Your task to perform on an android device: Open battery settings Image 0: 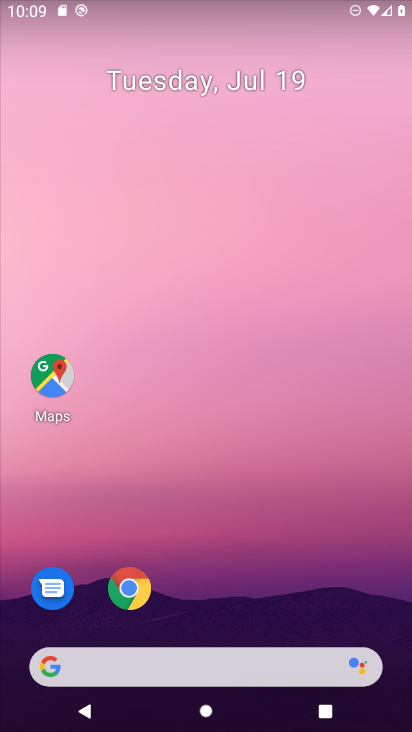
Step 0: click (269, 105)
Your task to perform on an android device: Open battery settings Image 1: 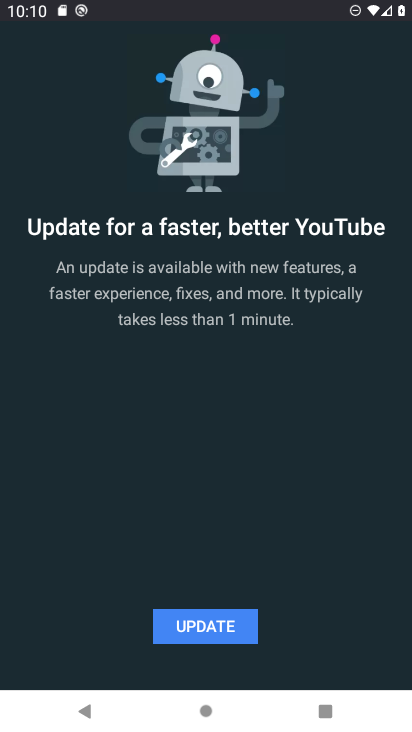
Step 1: press home button
Your task to perform on an android device: Open battery settings Image 2: 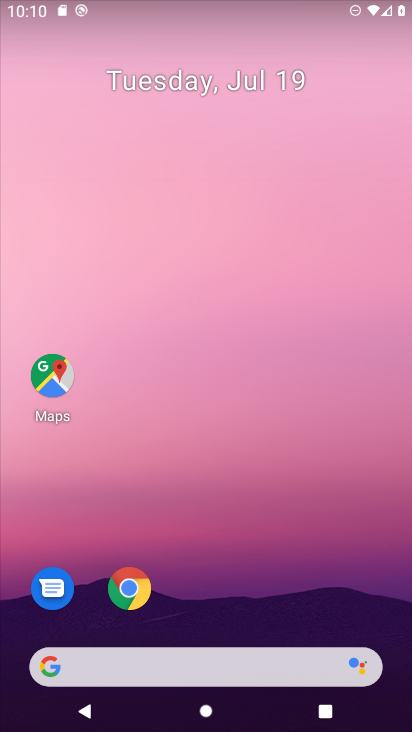
Step 2: drag from (302, 624) to (187, 6)
Your task to perform on an android device: Open battery settings Image 3: 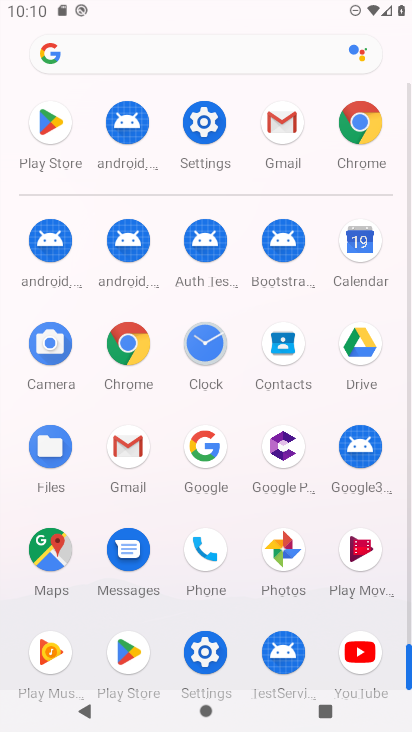
Step 3: click (207, 145)
Your task to perform on an android device: Open battery settings Image 4: 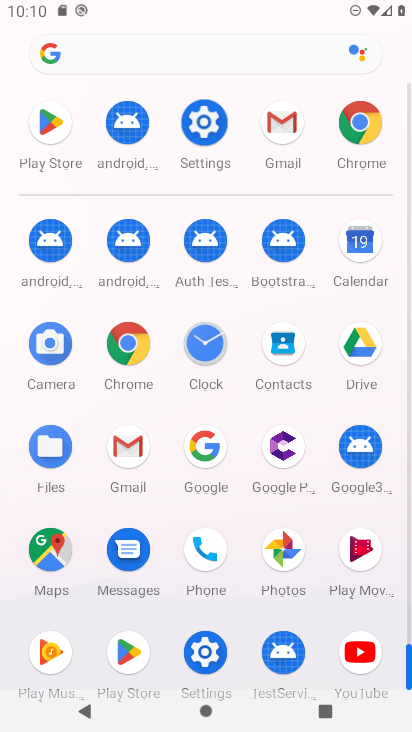
Step 4: click (207, 138)
Your task to perform on an android device: Open battery settings Image 5: 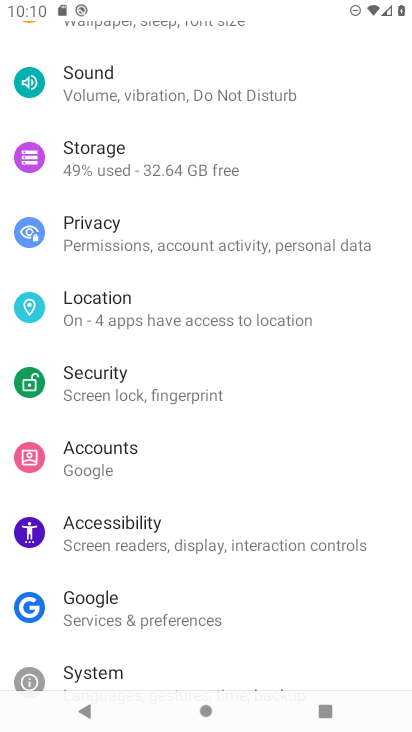
Step 5: click (138, 159)
Your task to perform on an android device: Open battery settings Image 6: 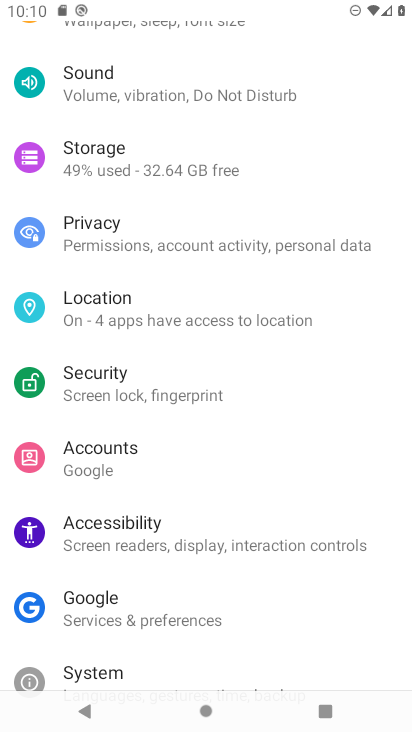
Step 6: drag from (155, 439) to (145, 124)
Your task to perform on an android device: Open battery settings Image 7: 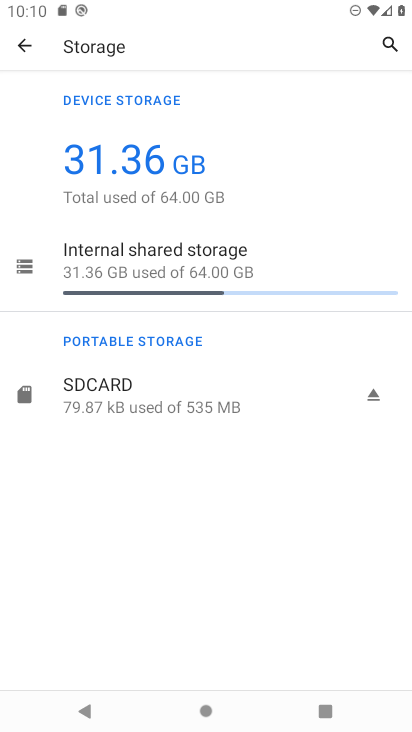
Step 7: click (24, 35)
Your task to perform on an android device: Open battery settings Image 8: 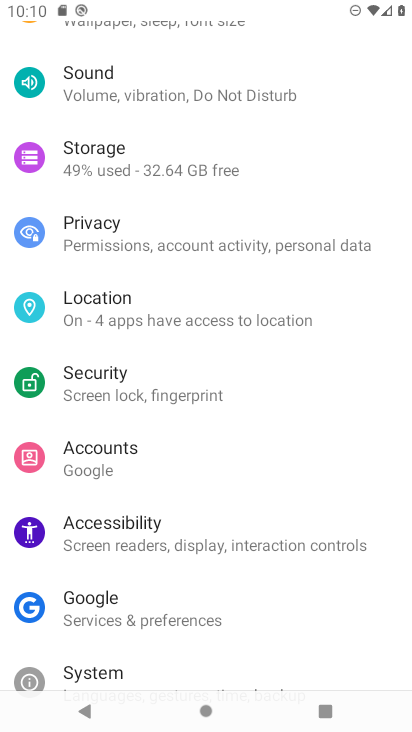
Step 8: drag from (117, 287) to (116, 409)
Your task to perform on an android device: Open battery settings Image 9: 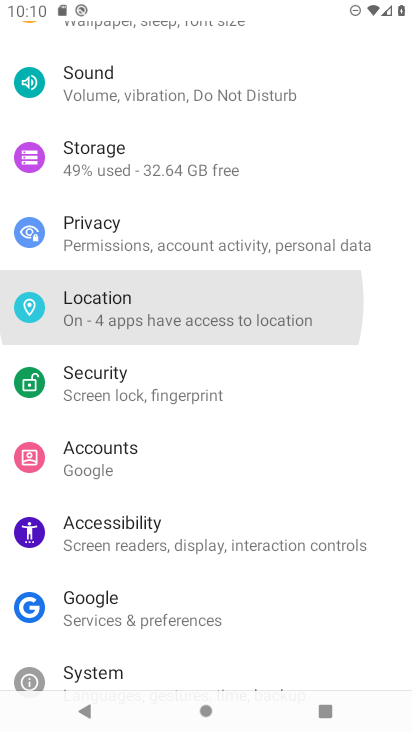
Step 9: drag from (126, 223) to (144, 402)
Your task to perform on an android device: Open battery settings Image 10: 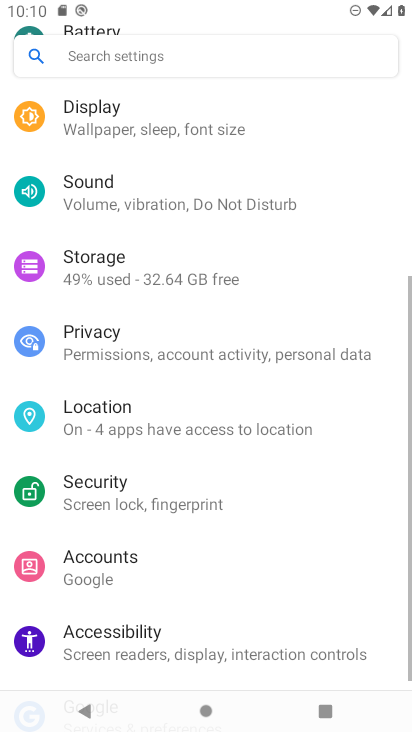
Step 10: drag from (118, 158) to (116, 341)
Your task to perform on an android device: Open battery settings Image 11: 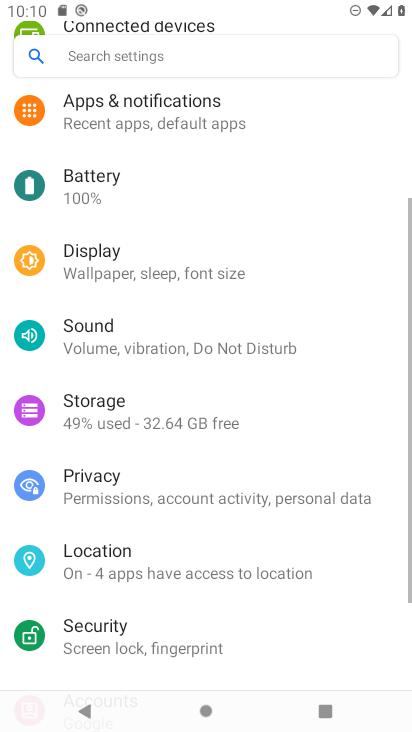
Step 11: drag from (125, 190) to (127, 401)
Your task to perform on an android device: Open battery settings Image 12: 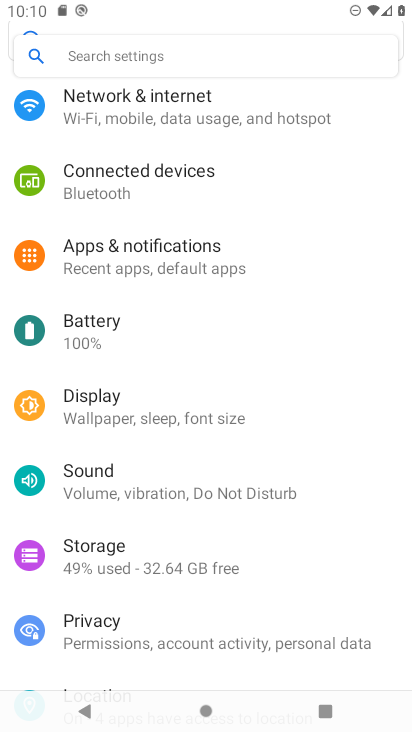
Step 12: click (89, 335)
Your task to perform on an android device: Open battery settings Image 13: 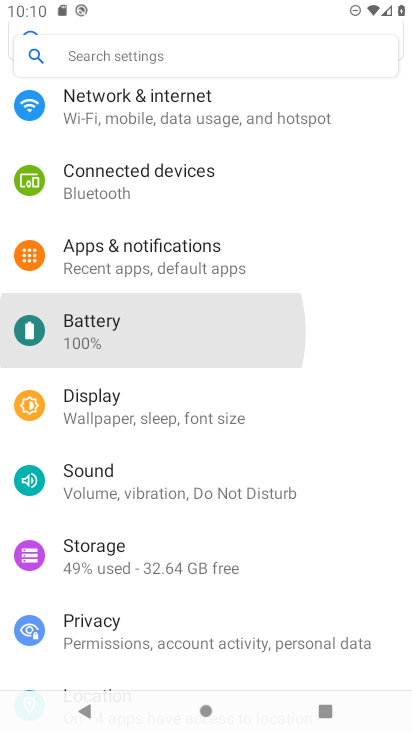
Step 13: click (85, 345)
Your task to perform on an android device: Open battery settings Image 14: 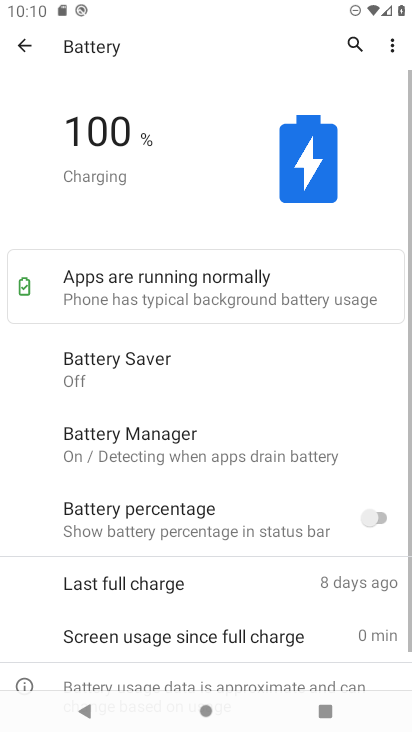
Step 14: task complete